Your task to perform on an android device: Go to Amazon Image 0: 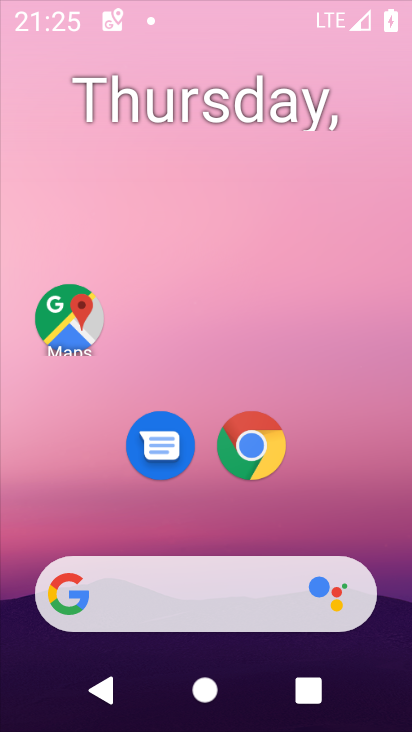
Step 0: drag from (202, 501) to (238, 0)
Your task to perform on an android device: Go to Amazon Image 1: 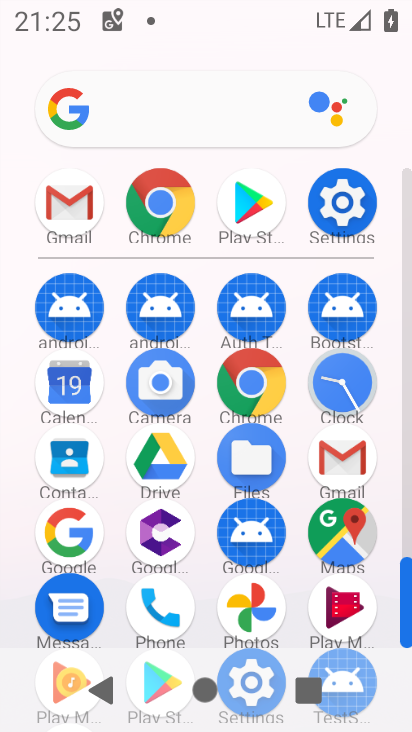
Step 1: click (162, 208)
Your task to perform on an android device: Go to Amazon Image 2: 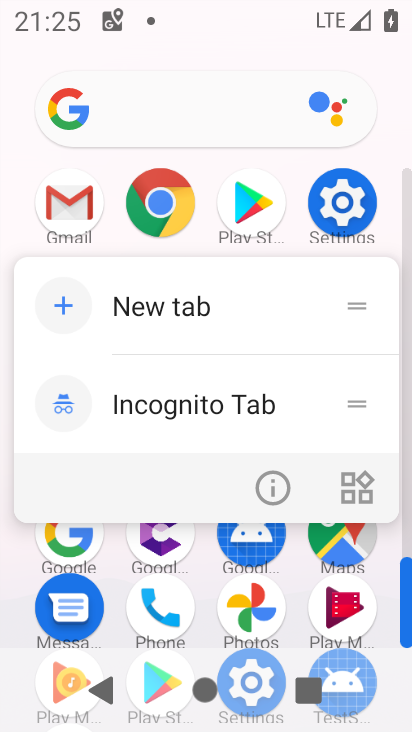
Step 2: click (287, 485)
Your task to perform on an android device: Go to Amazon Image 3: 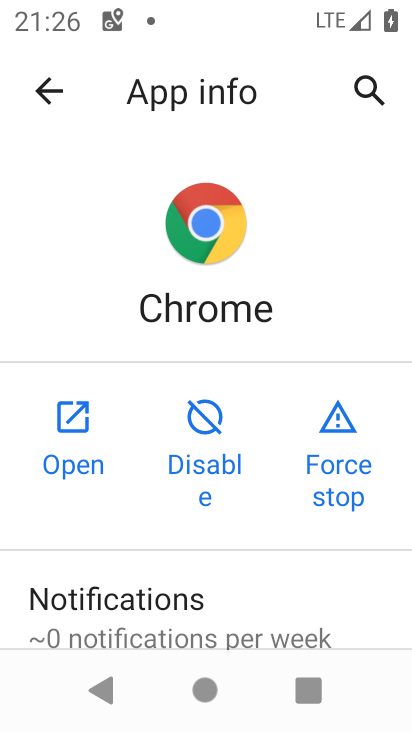
Step 3: click (62, 429)
Your task to perform on an android device: Go to Amazon Image 4: 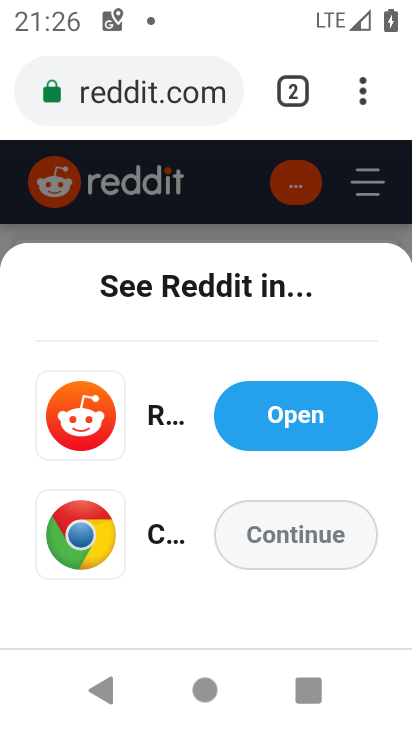
Step 4: click (295, 106)
Your task to perform on an android device: Go to Amazon Image 5: 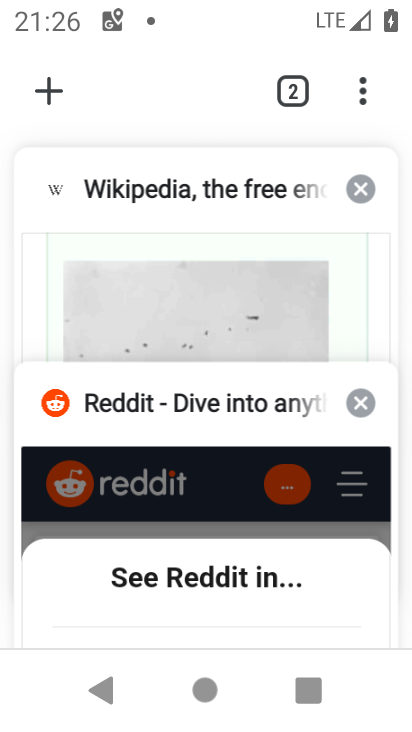
Step 5: click (359, 399)
Your task to perform on an android device: Go to Amazon Image 6: 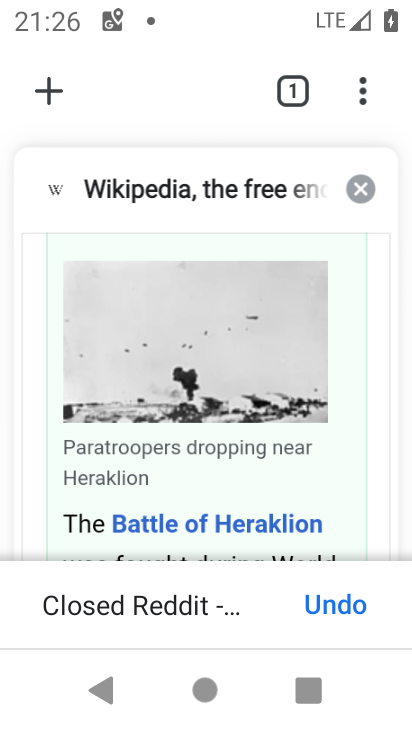
Step 6: click (45, 94)
Your task to perform on an android device: Go to Amazon Image 7: 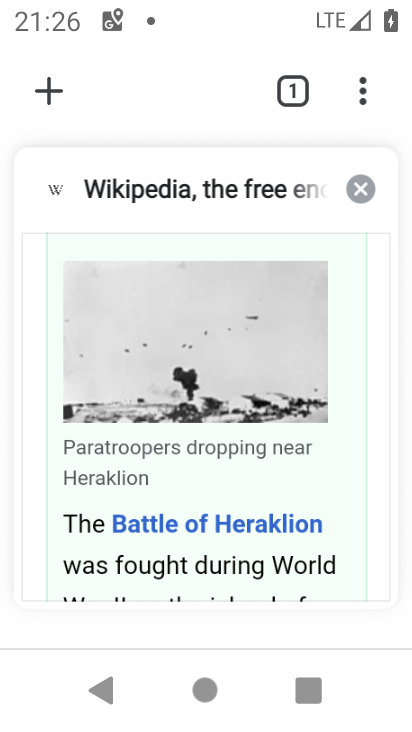
Step 7: click (47, 93)
Your task to perform on an android device: Go to Amazon Image 8: 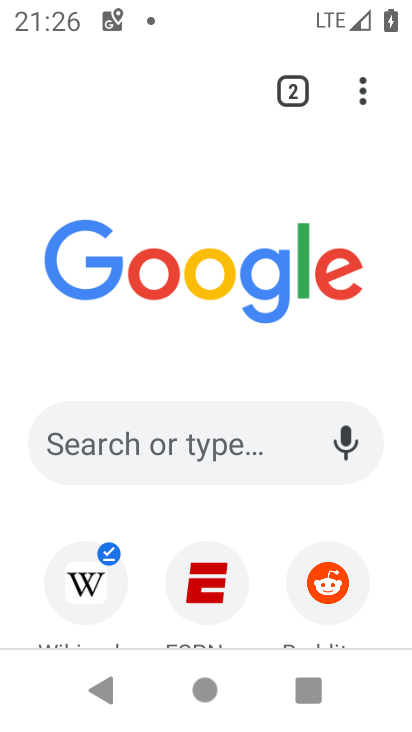
Step 8: drag from (213, 499) to (263, 130)
Your task to perform on an android device: Go to Amazon Image 9: 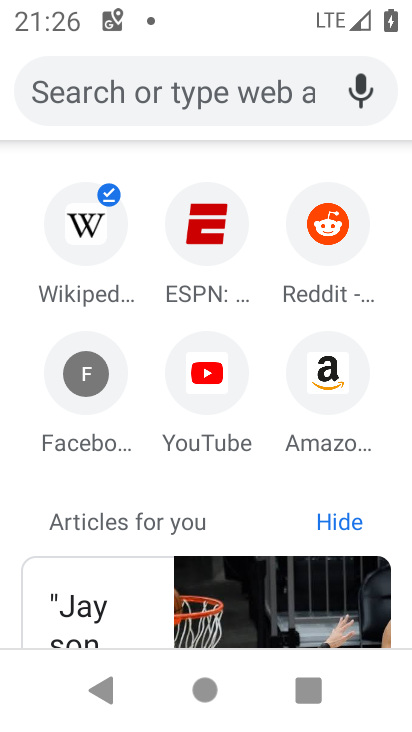
Step 9: click (310, 377)
Your task to perform on an android device: Go to Amazon Image 10: 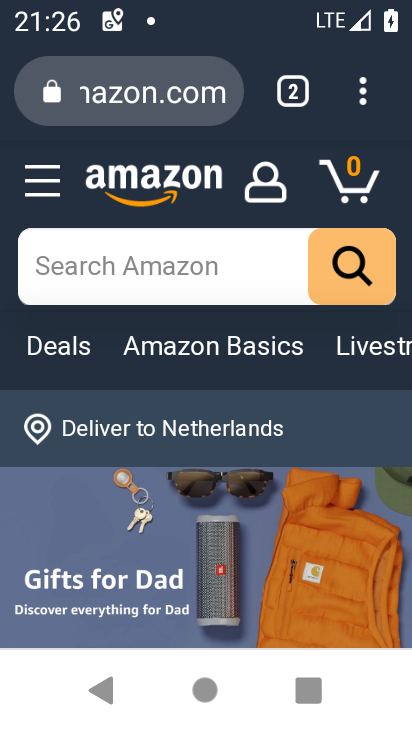
Step 10: task complete